Your task to perform on an android device: Open Maps and search for coffee Image 0: 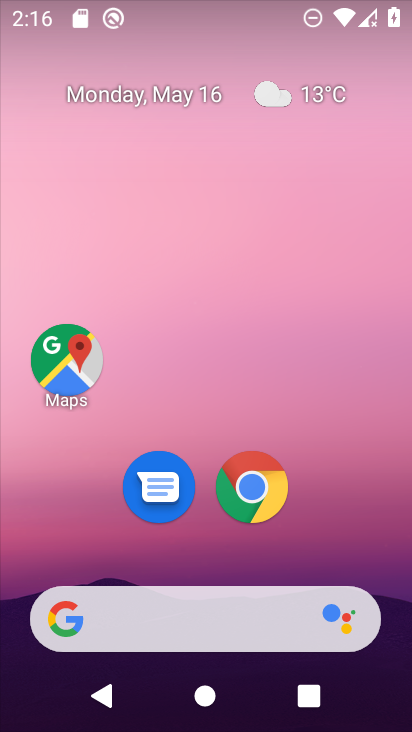
Step 0: click (50, 357)
Your task to perform on an android device: Open Maps and search for coffee Image 1: 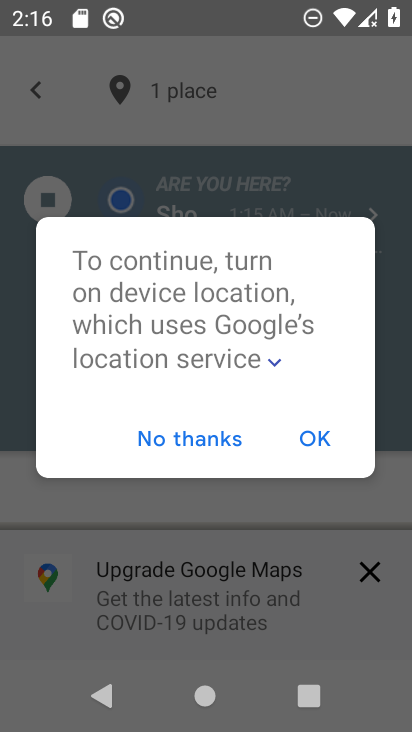
Step 1: click (305, 447)
Your task to perform on an android device: Open Maps and search for coffee Image 2: 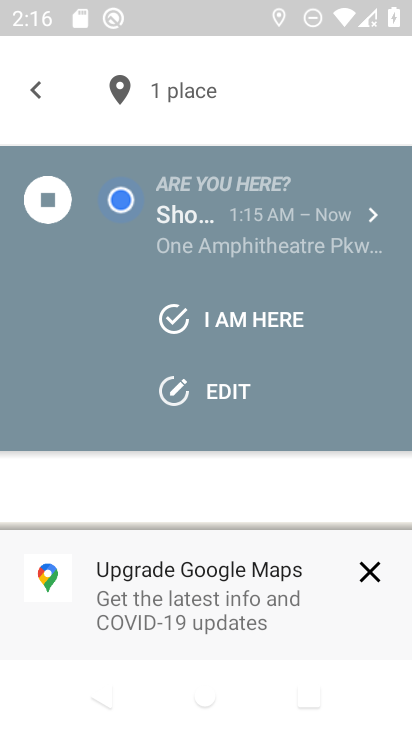
Step 2: click (29, 89)
Your task to perform on an android device: Open Maps and search for coffee Image 3: 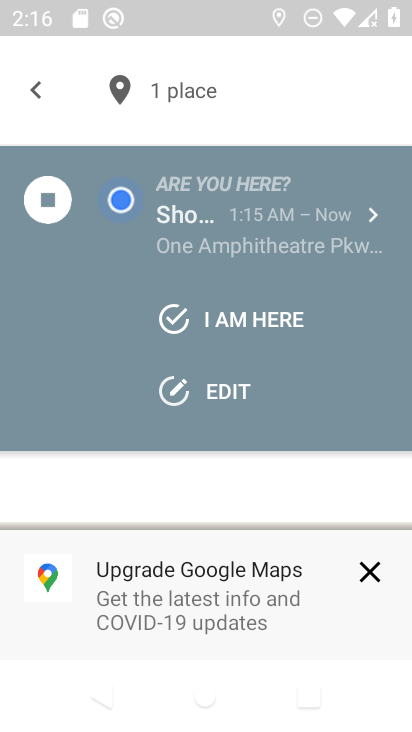
Step 3: click (29, 89)
Your task to perform on an android device: Open Maps and search for coffee Image 4: 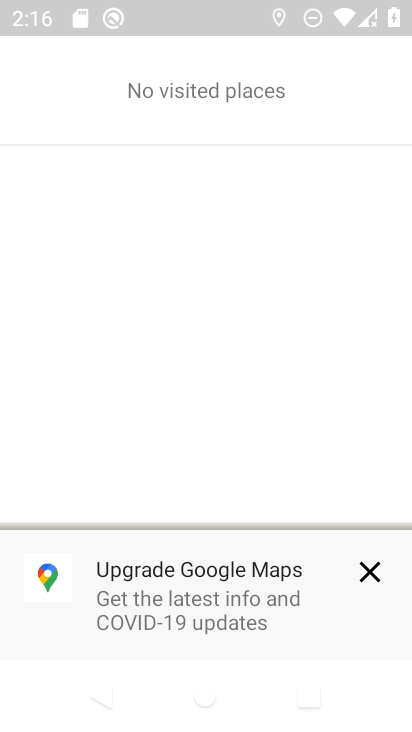
Step 4: press home button
Your task to perform on an android device: Open Maps and search for coffee Image 5: 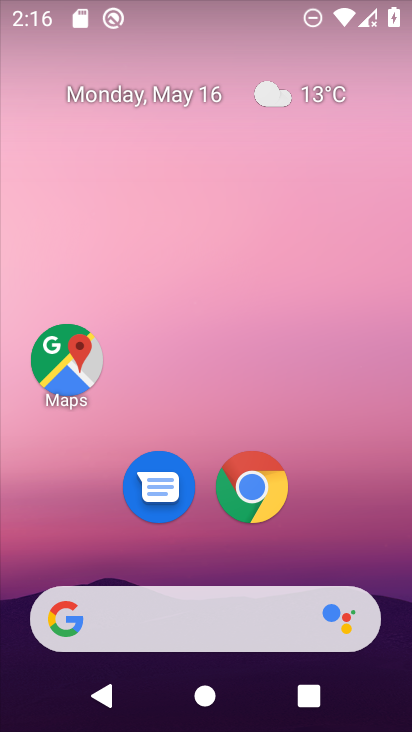
Step 5: click (66, 368)
Your task to perform on an android device: Open Maps and search for coffee Image 6: 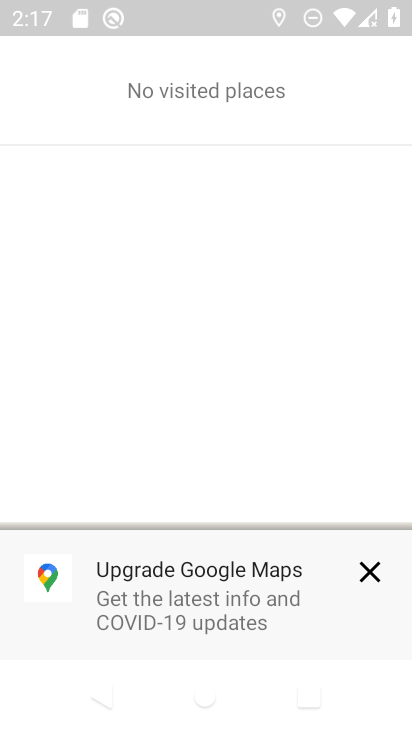
Step 6: click (365, 580)
Your task to perform on an android device: Open Maps and search for coffee Image 7: 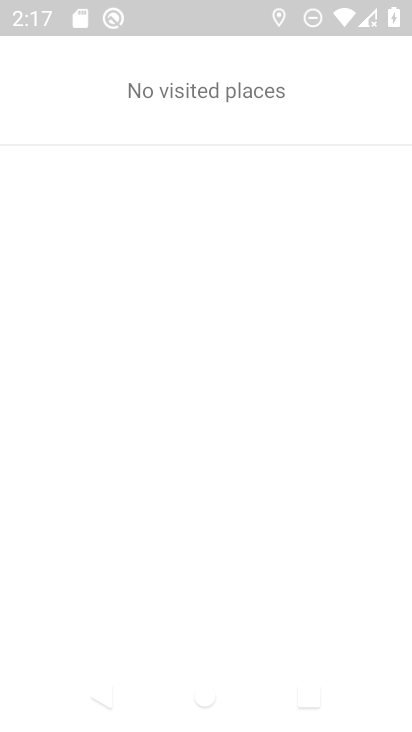
Step 7: task complete